Your task to perform on an android device: Go to accessibility settings Image 0: 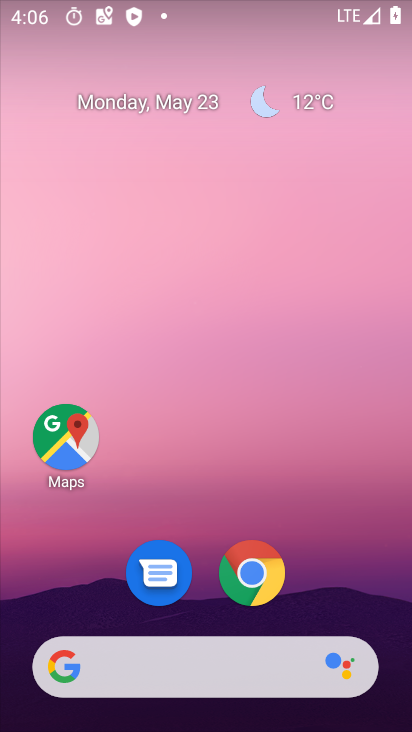
Step 0: press home button
Your task to perform on an android device: Go to accessibility settings Image 1: 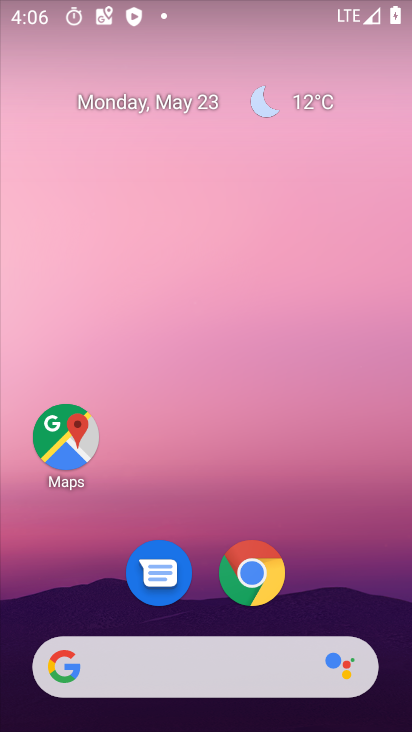
Step 1: drag from (24, 651) to (278, 121)
Your task to perform on an android device: Go to accessibility settings Image 2: 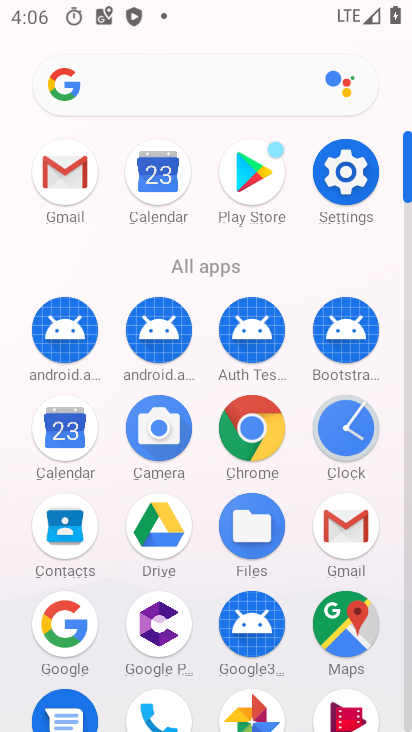
Step 2: click (358, 175)
Your task to perform on an android device: Go to accessibility settings Image 3: 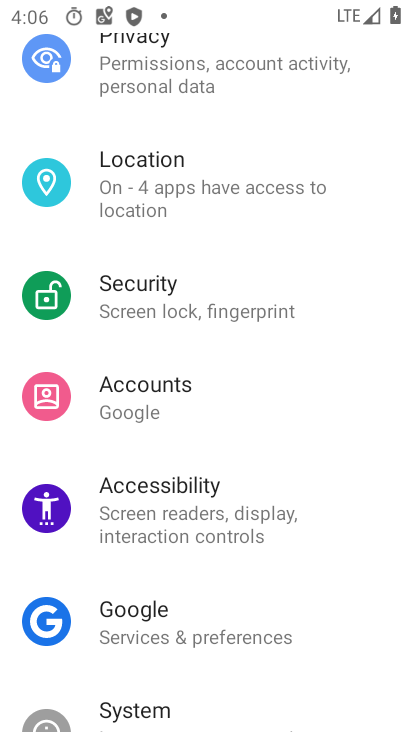
Step 3: drag from (110, 95) to (282, 165)
Your task to perform on an android device: Go to accessibility settings Image 4: 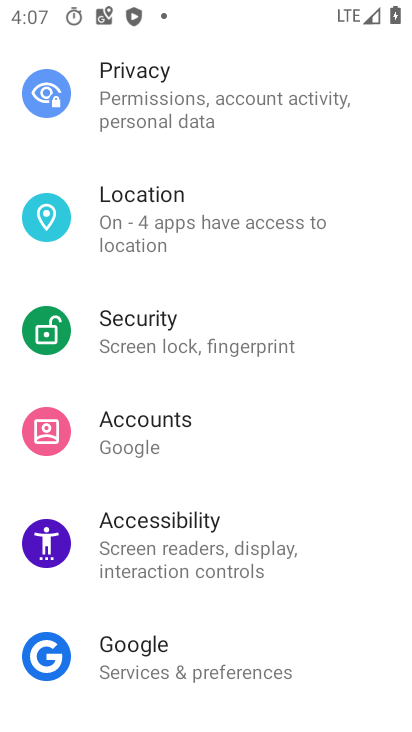
Step 4: drag from (98, 615) to (326, 174)
Your task to perform on an android device: Go to accessibility settings Image 5: 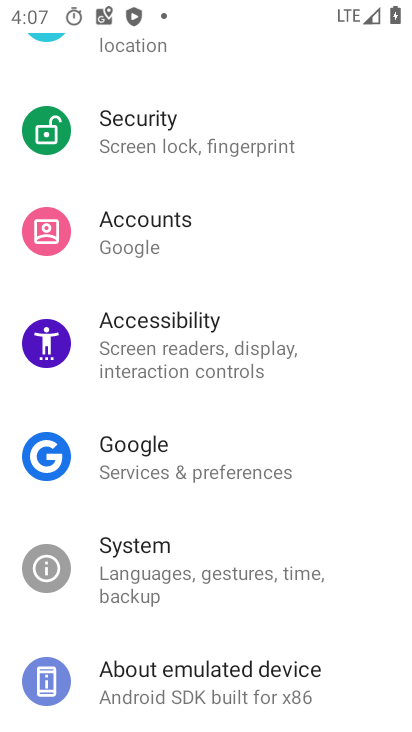
Step 5: click (197, 333)
Your task to perform on an android device: Go to accessibility settings Image 6: 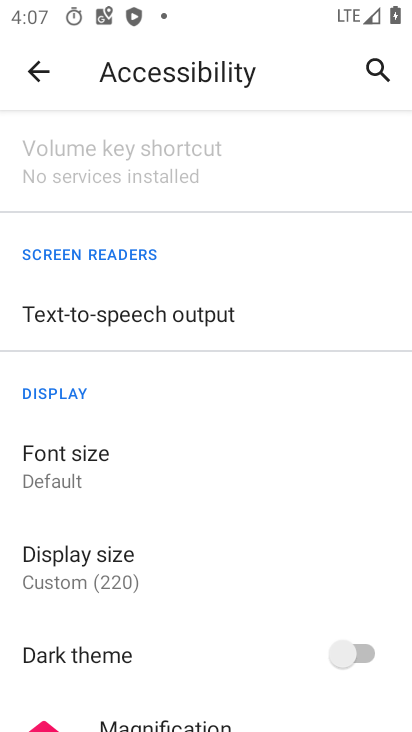
Step 6: task complete